Your task to perform on an android device: Is it going to rain tomorrow? Image 0: 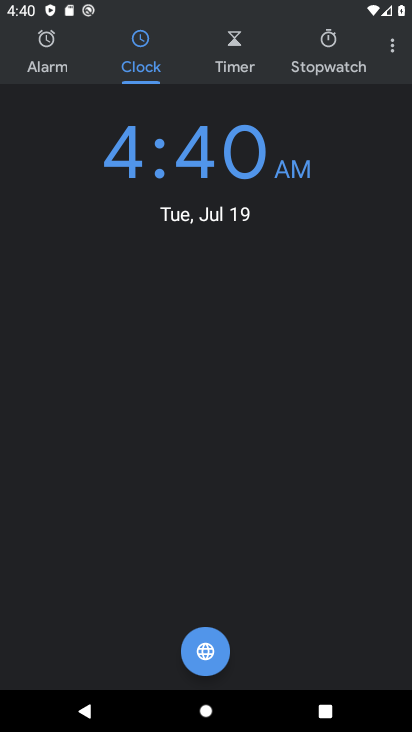
Step 0: press home button
Your task to perform on an android device: Is it going to rain tomorrow? Image 1: 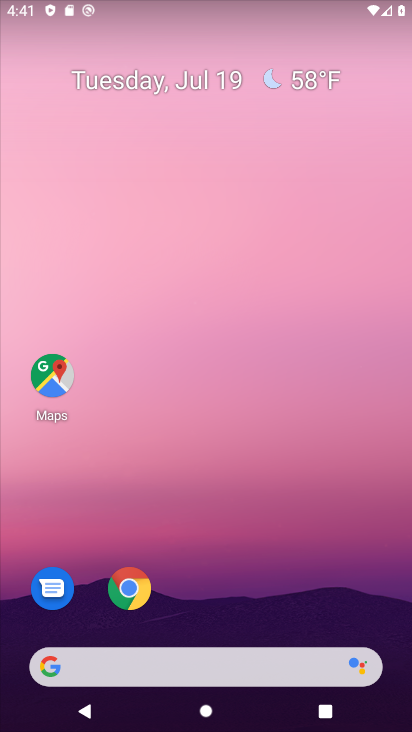
Step 1: drag from (350, 566) to (236, 120)
Your task to perform on an android device: Is it going to rain tomorrow? Image 2: 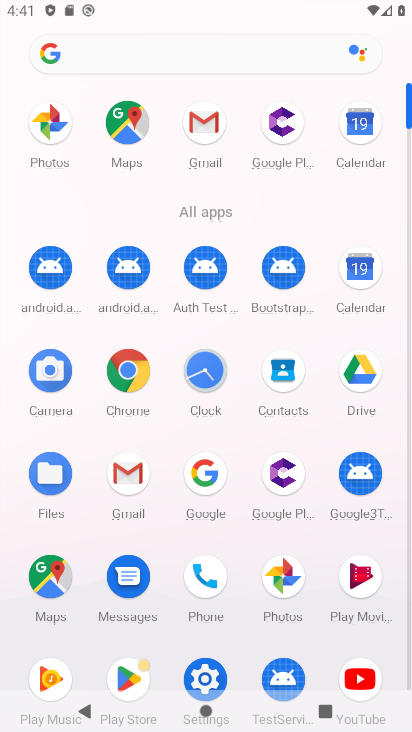
Step 2: click (128, 372)
Your task to perform on an android device: Is it going to rain tomorrow? Image 3: 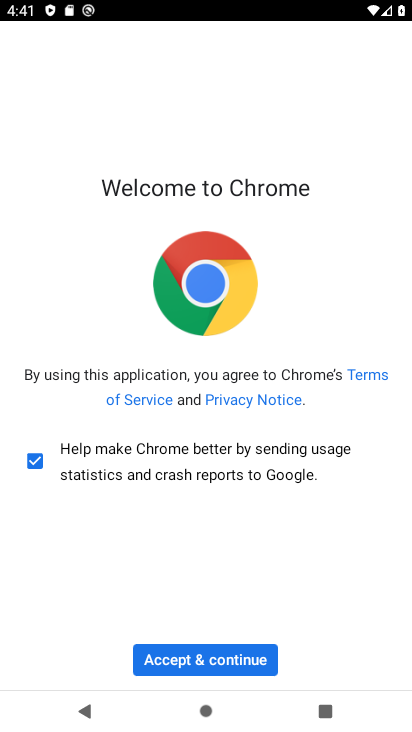
Step 3: click (220, 657)
Your task to perform on an android device: Is it going to rain tomorrow? Image 4: 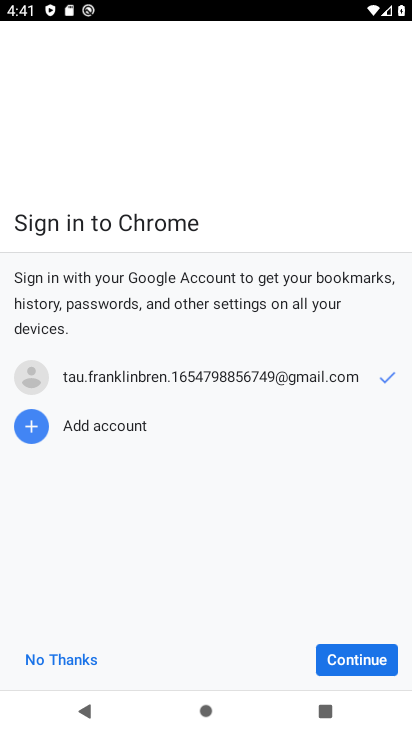
Step 4: click (336, 651)
Your task to perform on an android device: Is it going to rain tomorrow? Image 5: 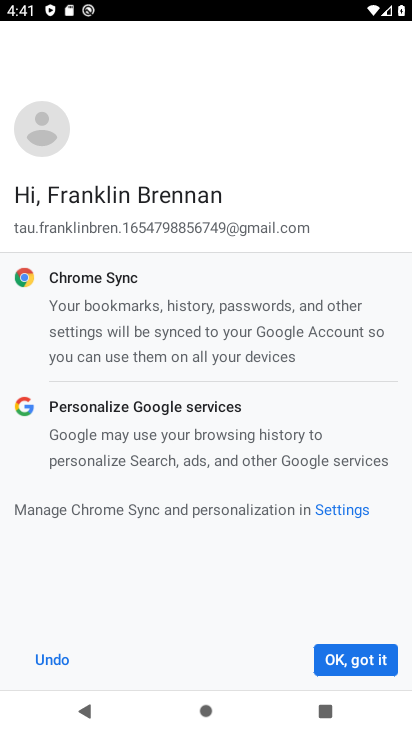
Step 5: click (349, 638)
Your task to perform on an android device: Is it going to rain tomorrow? Image 6: 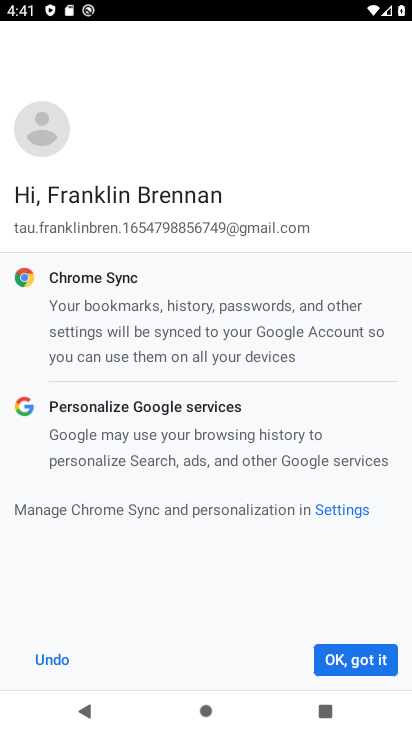
Step 6: click (351, 666)
Your task to perform on an android device: Is it going to rain tomorrow? Image 7: 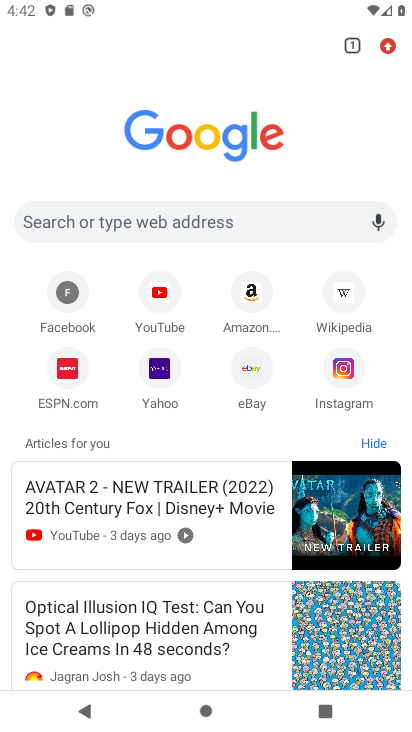
Step 7: click (213, 217)
Your task to perform on an android device: Is it going to rain tomorrow? Image 8: 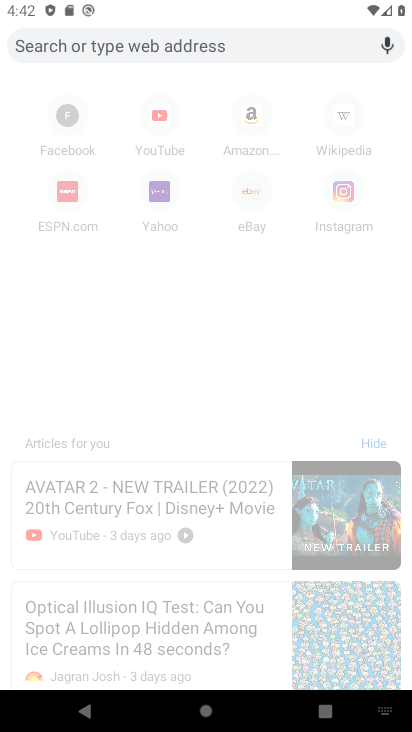
Step 8: type "weather"
Your task to perform on an android device: Is it going to rain tomorrow? Image 9: 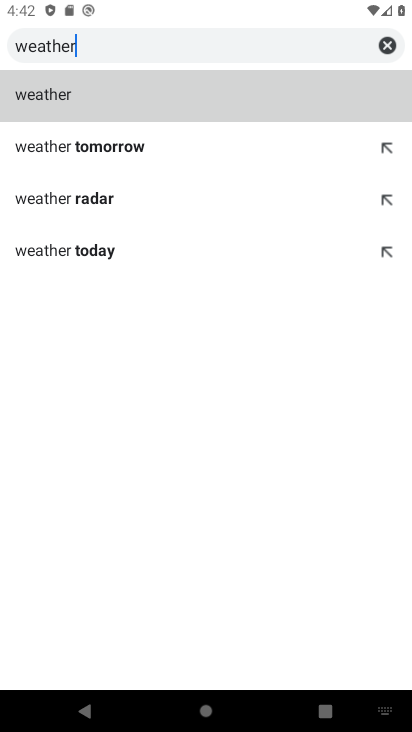
Step 9: click (35, 83)
Your task to perform on an android device: Is it going to rain tomorrow? Image 10: 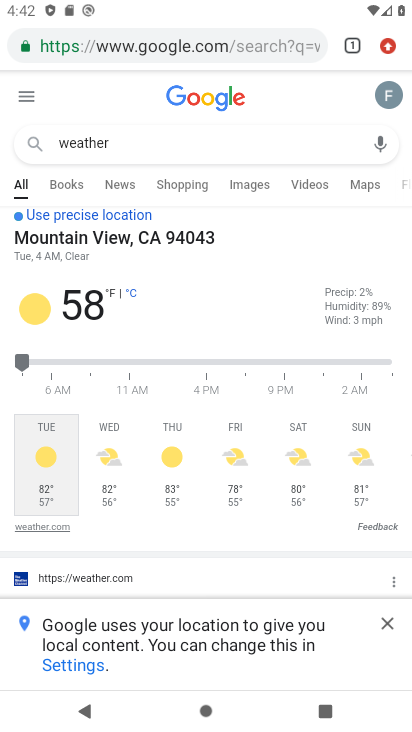
Step 10: click (101, 459)
Your task to perform on an android device: Is it going to rain tomorrow? Image 11: 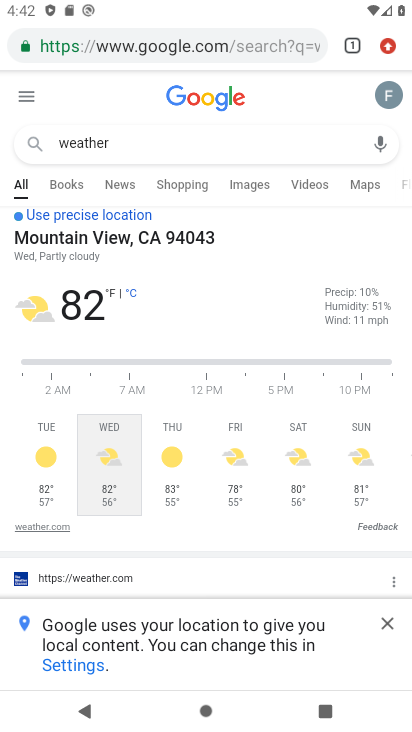
Step 11: task complete